Your task to perform on an android device: View the shopping cart on newegg. Search for "logitech g933" on newegg, select the first entry, add it to the cart, then select checkout. Image 0: 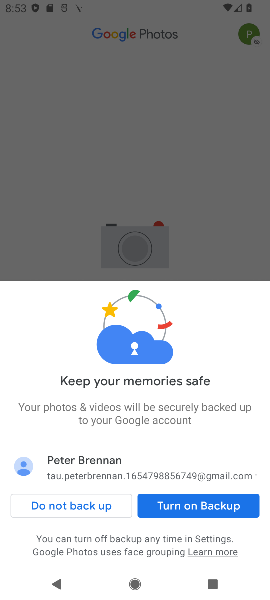
Step 0: task complete